Your task to perform on an android device: What's the price of the 2x4x8 boards at Home Depot? Image 0: 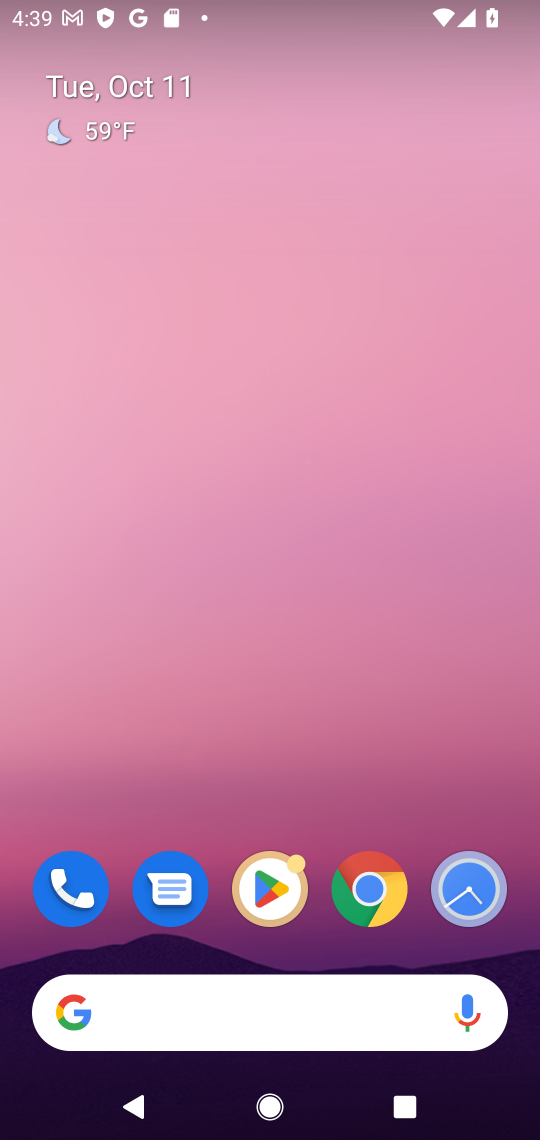
Step 0: drag from (235, 945) to (251, 149)
Your task to perform on an android device: What's the price of the 2x4x8 boards at Home Depot? Image 1: 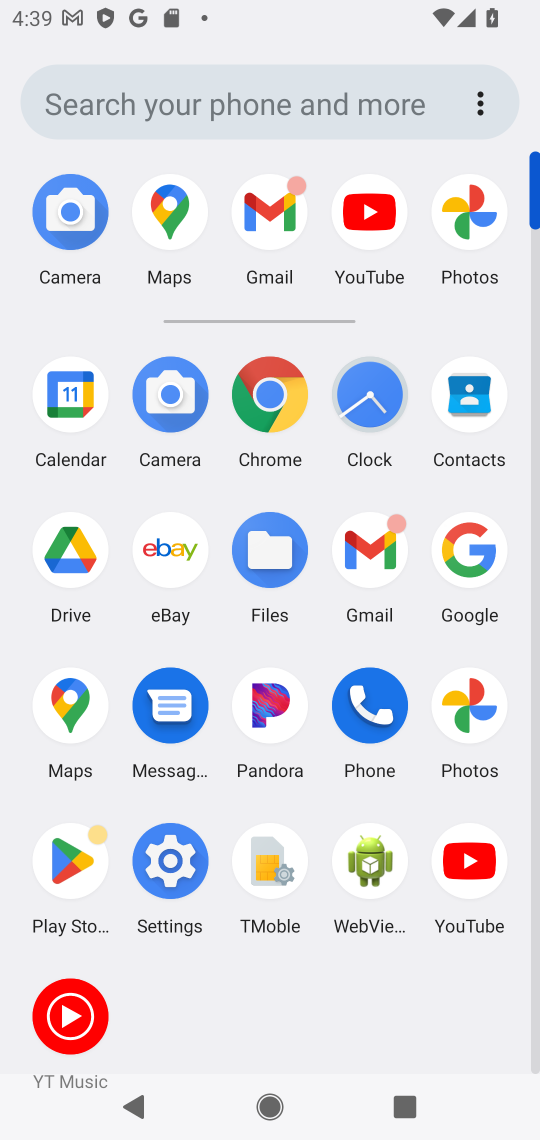
Step 1: click (441, 539)
Your task to perform on an android device: What's the price of the 2x4x8 boards at Home Depot? Image 2: 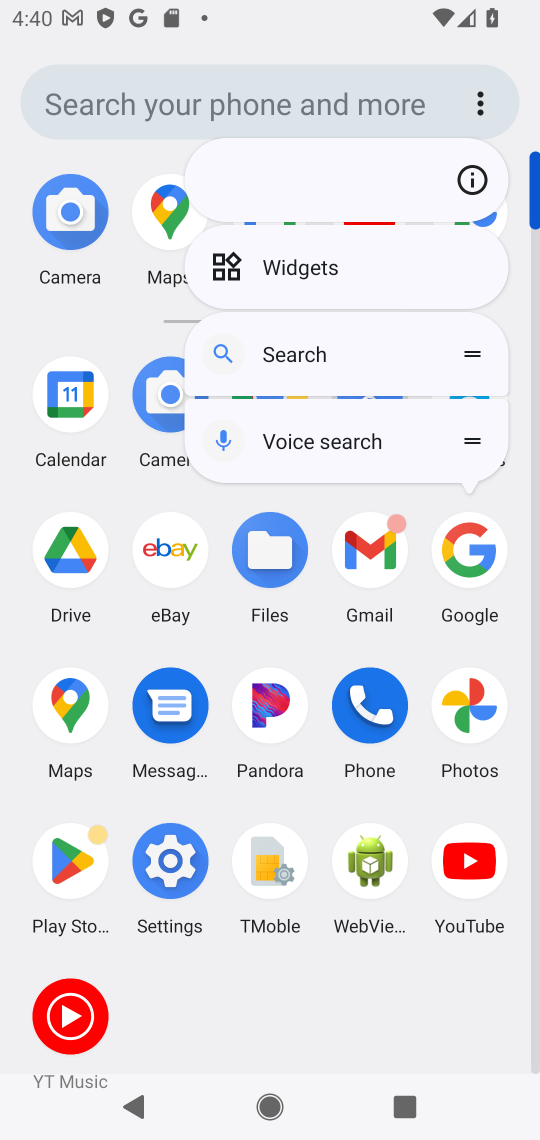
Step 2: click (467, 546)
Your task to perform on an android device: What's the price of the 2x4x8 boards at Home Depot? Image 3: 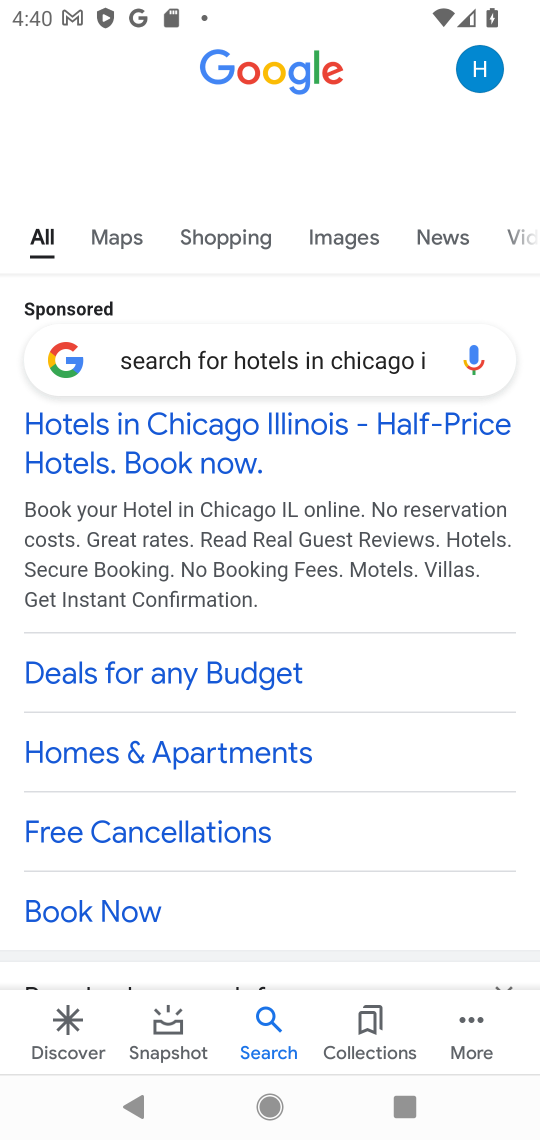
Step 3: click (293, 362)
Your task to perform on an android device: What's the price of the 2x4x8 boards at Home Depot? Image 4: 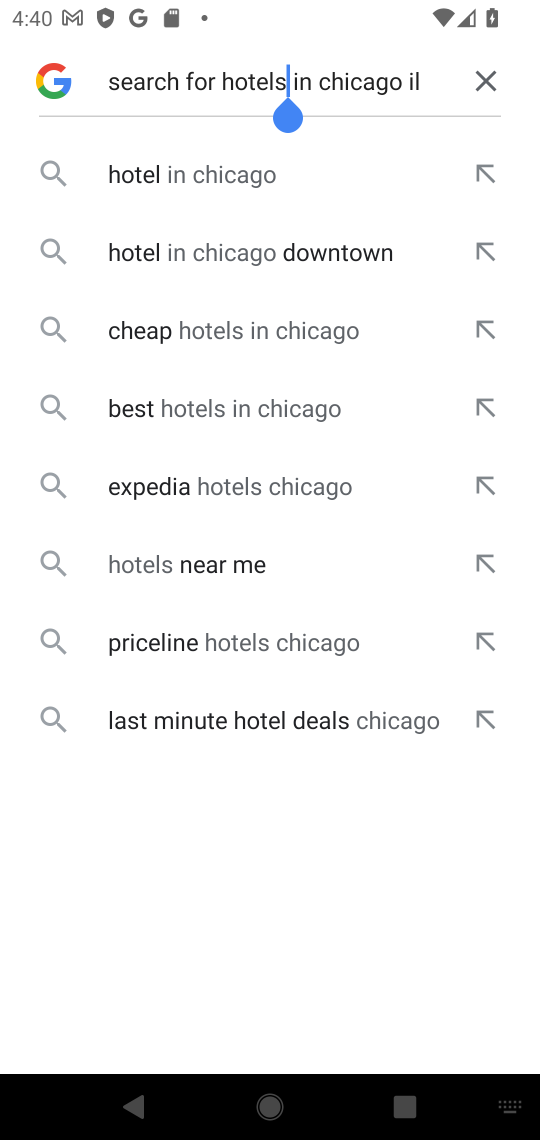
Step 4: click (483, 81)
Your task to perform on an android device: What's the price of the 2x4x8 boards at Home Depot? Image 5: 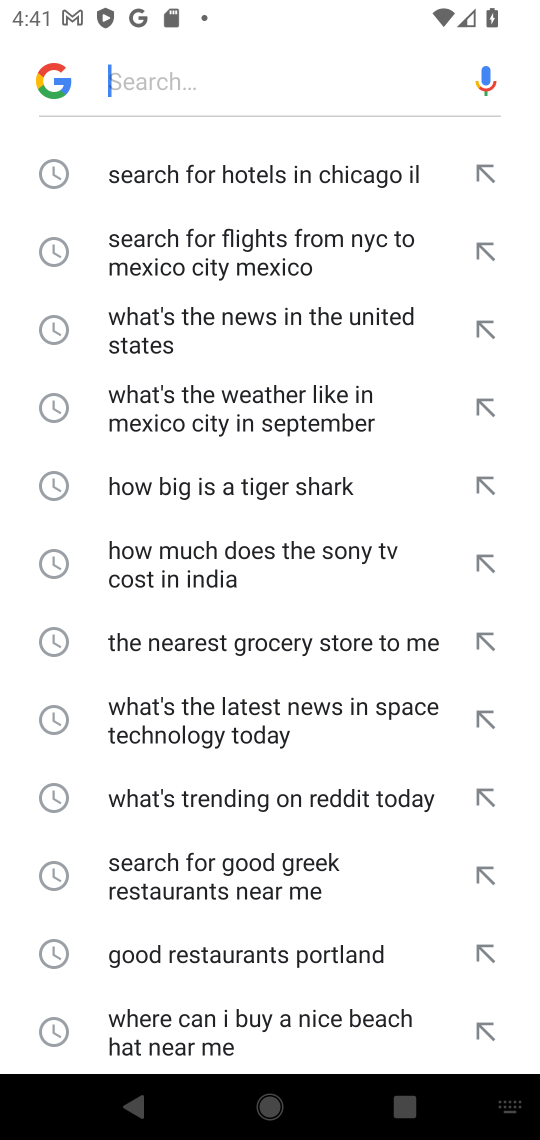
Step 5: click (286, 87)
Your task to perform on an android device: What's the price of the 2x4x8 boards at Home Depot? Image 6: 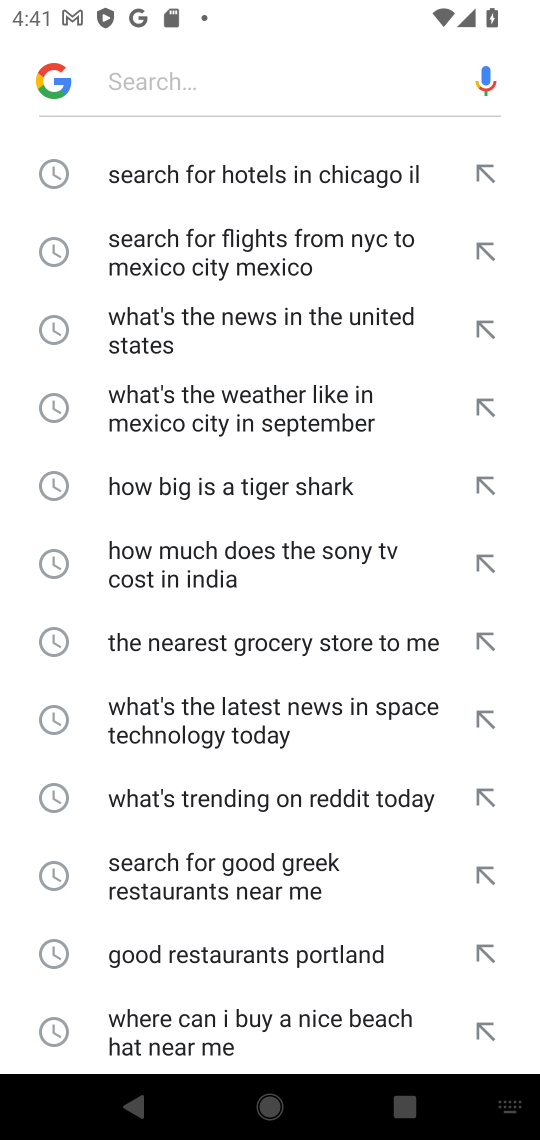
Step 6: type "What's the price of the 2x4x8 boards at Home Depot? "
Your task to perform on an android device: What's the price of the 2x4x8 boards at Home Depot? Image 7: 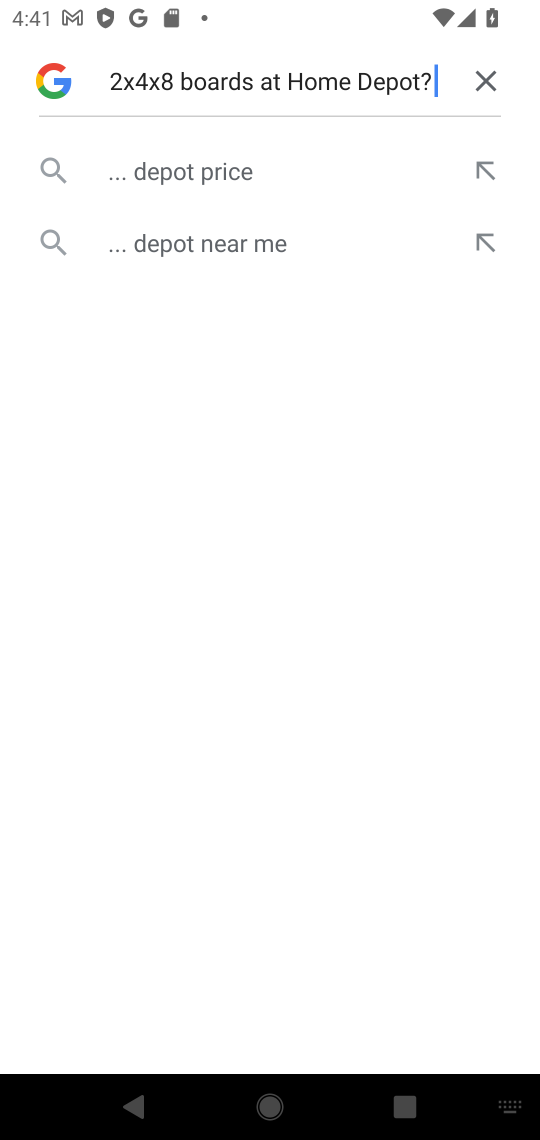
Step 7: click (209, 181)
Your task to perform on an android device: What's the price of the 2x4x8 boards at Home Depot? Image 8: 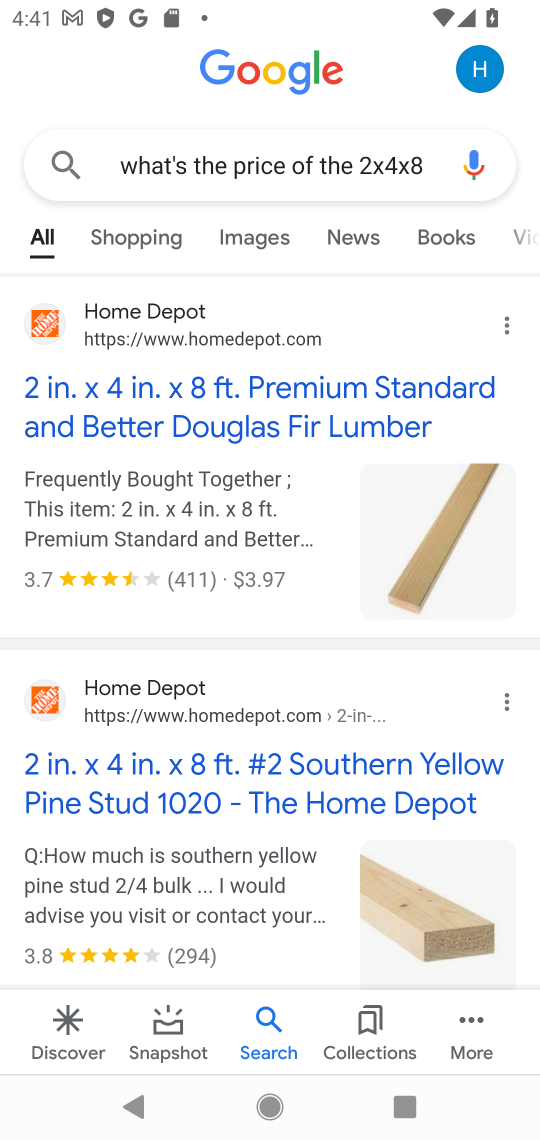
Step 8: click (118, 423)
Your task to perform on an android device: What's the price of the 2x4x8 boards at Home Depot? Image 9: 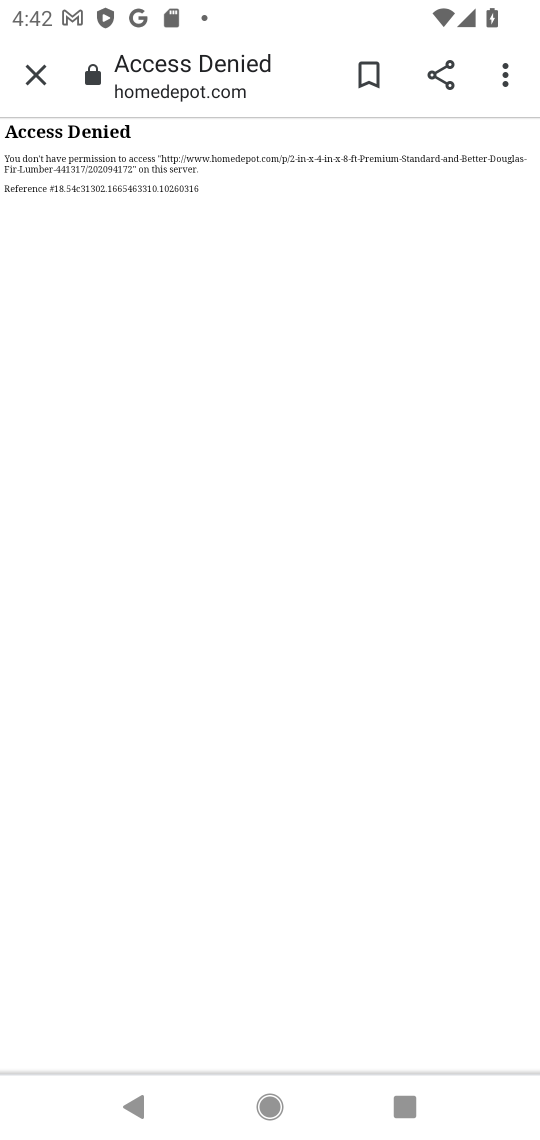
Step 9: click (32, 77)
Your task to perform on an android device: What's the price of the 2x4x8 boards at Home Depot? Image 10: 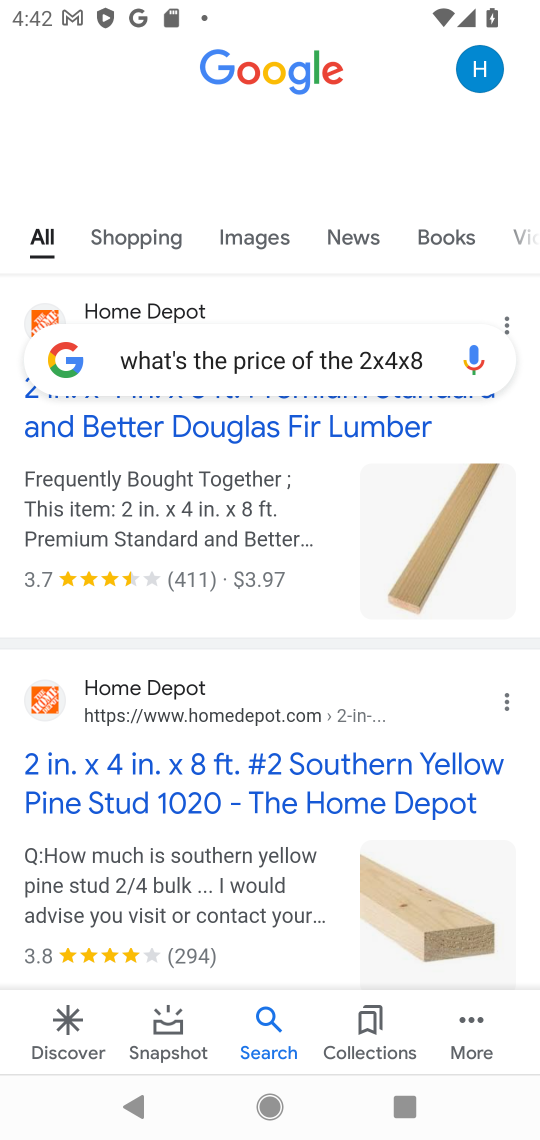
Step 10: click (173, 791)
Your task to perform on an android device: What's the price of the 2x4x8 boards at Home Depot? Image 11: 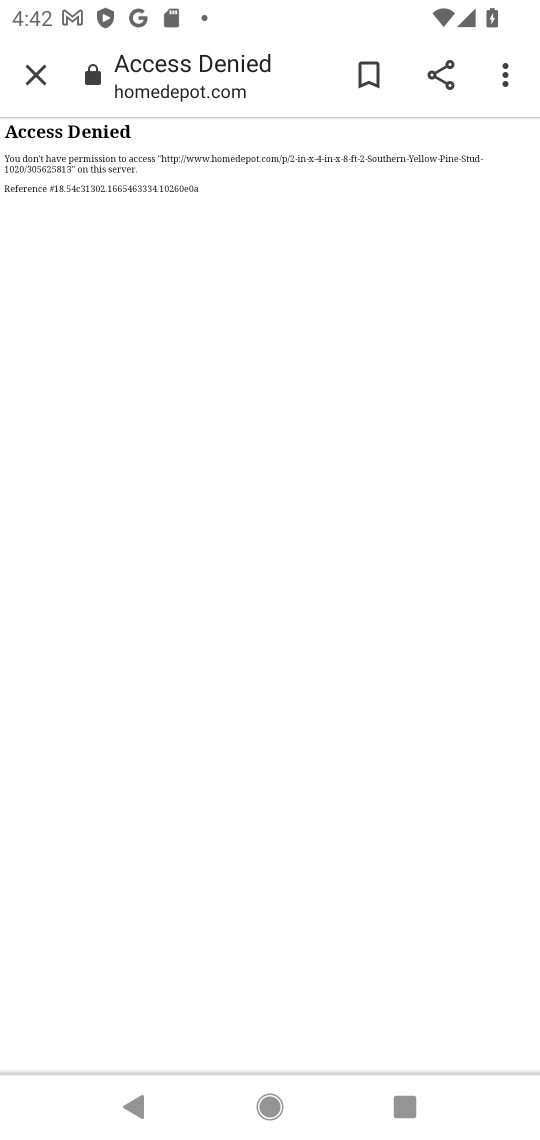
Step 11: task complete